Your task to perform on an android device: turn on improve location accuracy Image 0: 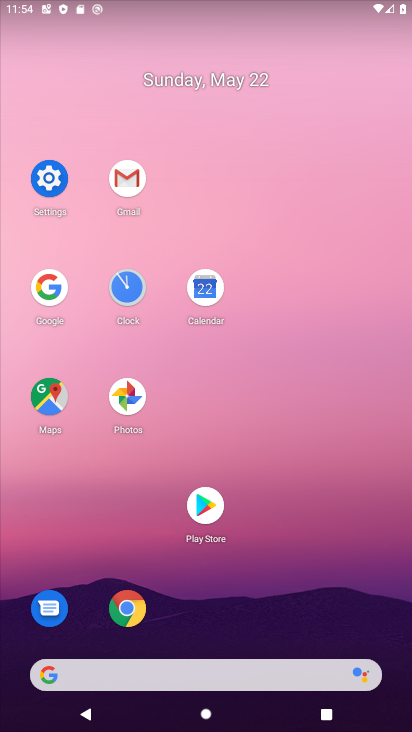
Step 0: click (44, 179)
Your task to perform on an android device: turn on improve location accuracy Image 1: 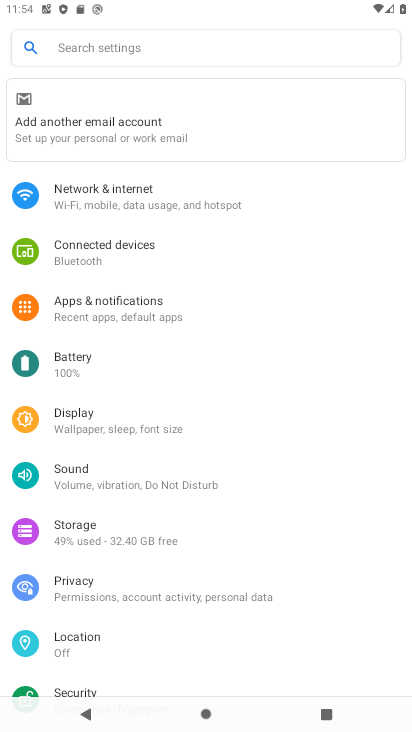
Step 1: click (174, 631)
Your task to perform on an android device: turn on improve location accuracy Image 2: 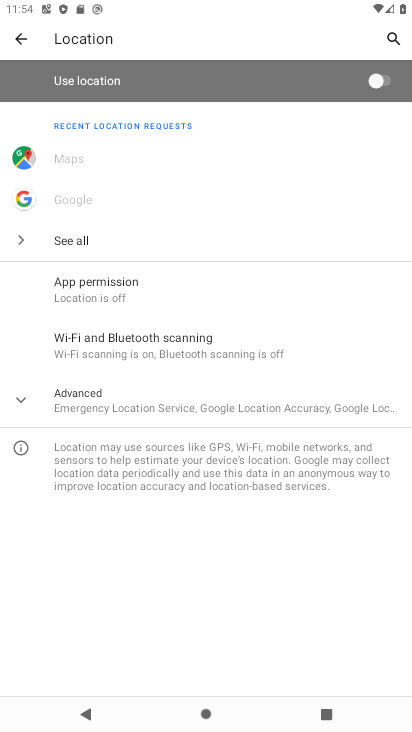
Step 2: click (92, 387)
Your task to perform on an android device: turn on improve location accuracy Image 3: 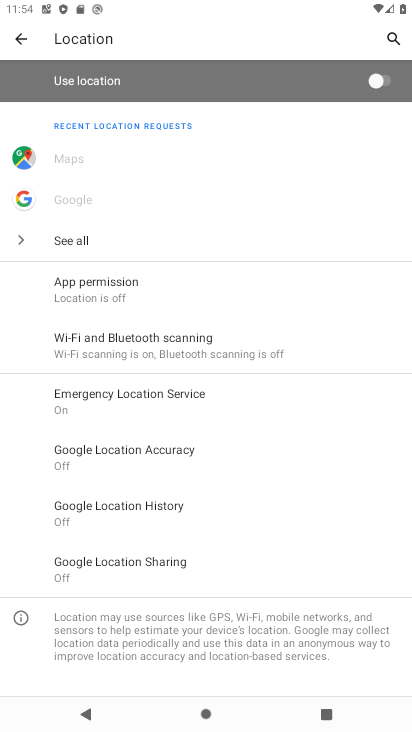
Step 3: click (190, 453)
Your task to perform on an android device: turn on improve location accuracy Image 4: 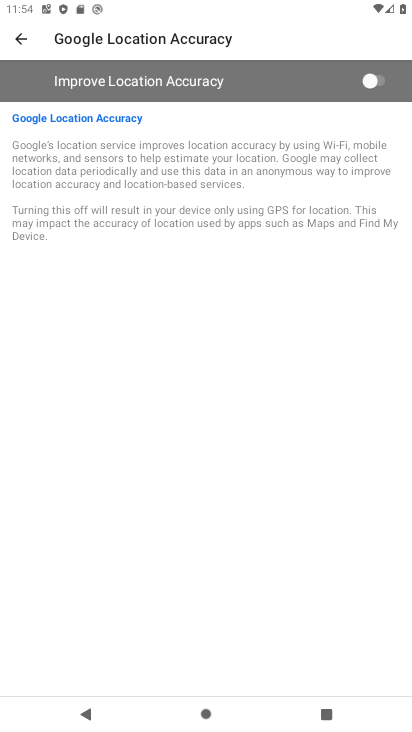
Step 4: click (374, 91)
Your task to perform on an android device: turn on improve location accuracy Image 5: 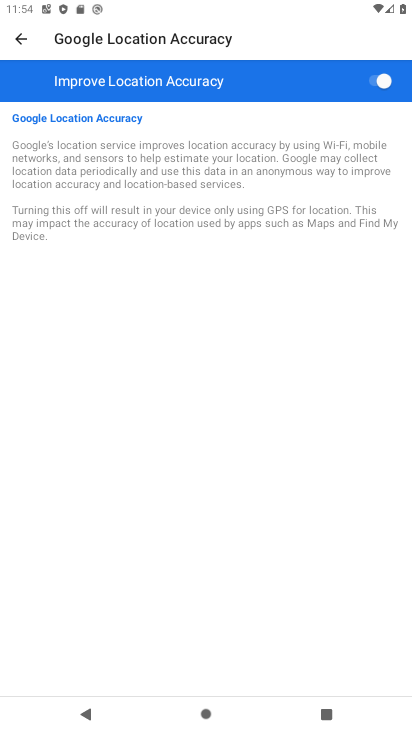
Step 5: task complete